Your task to perform on an android device: turn off priority inbox in the gmail app Image 0: 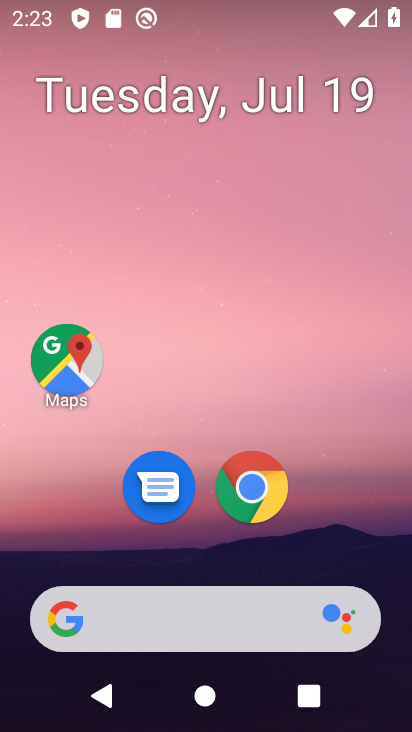
Step 0: drag from (211, 570) to (184, 0)
Your task to perform on an android device: turn off priority inbox in the gmail app Image 1: 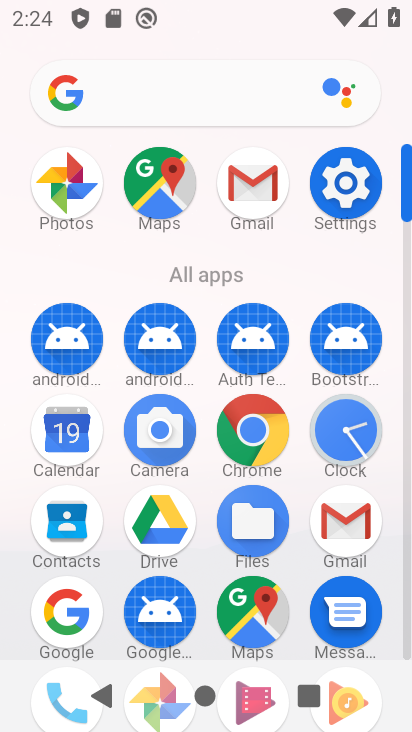
Step 1: click (261, 184)
Your task to perform on an android device: turn off priority inbox in the gmail app Image 2: 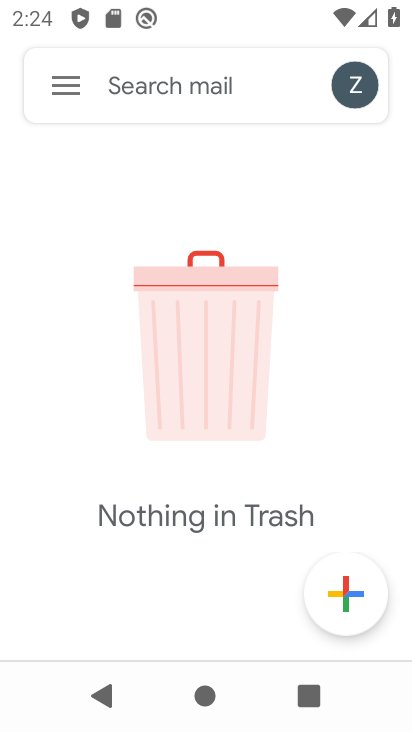
Step 2: click (54, 67)
Your task to perform on an android device: turn off priority inbox in the gmail app Image 3: 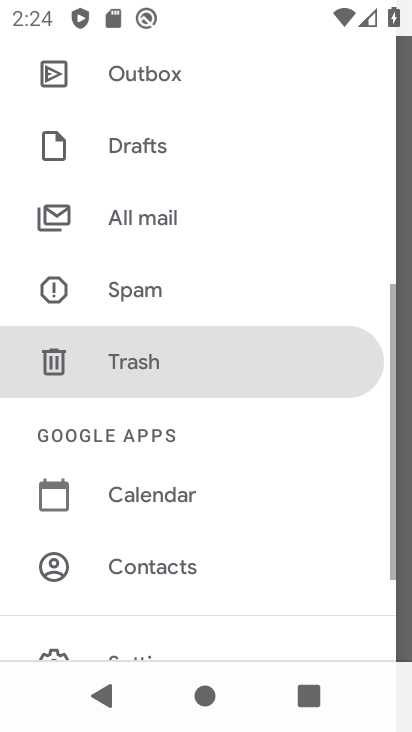
Step 3: drag from (137, 570) to (189, 106)
Your task to perform on an android device: turn off priority inbox in the gmail app Image 4: 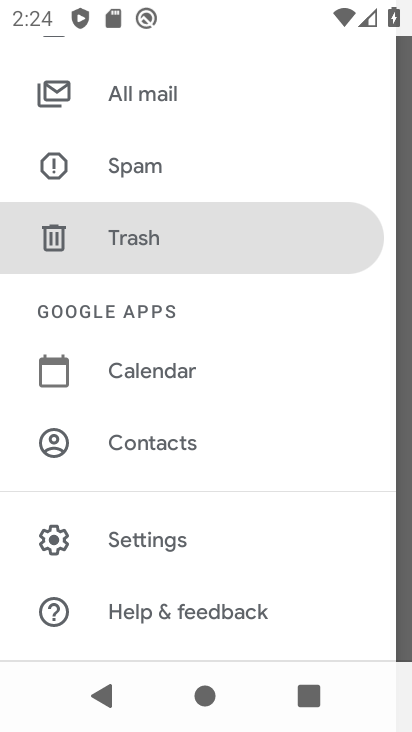
Step 4: click (181, 544)
Your task to perform on an android device: turn off priority inbox in the gmail app Image 5: 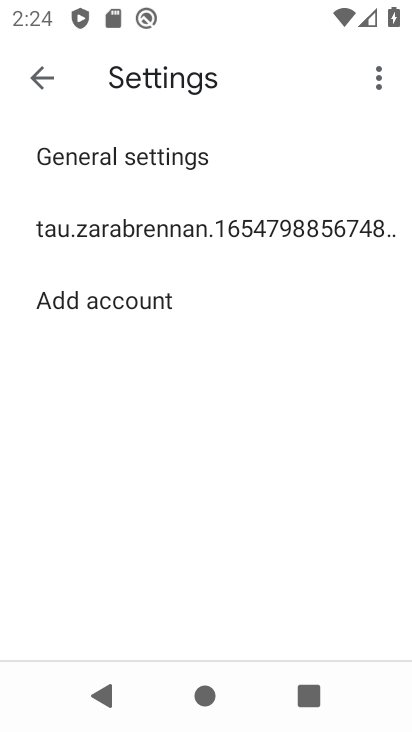
Step 5: click (151, 234)
Your task to perform on an android device: turn off priority inbox in the gmail app Image 6: 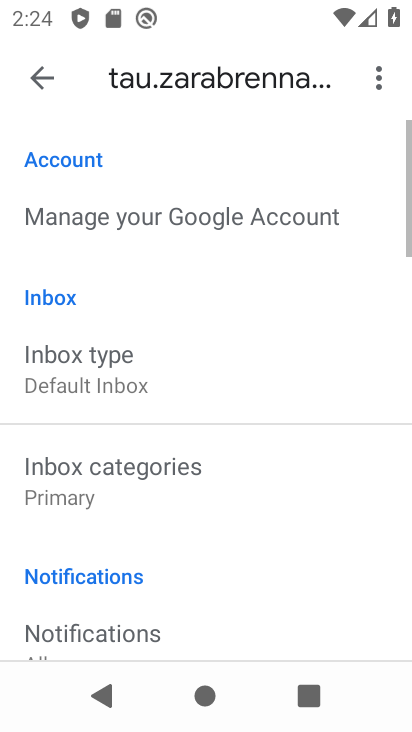
Step 6: click (86, 388)
Your task to perform on an android device: turn off priority inbox in the gmail app Image 7: 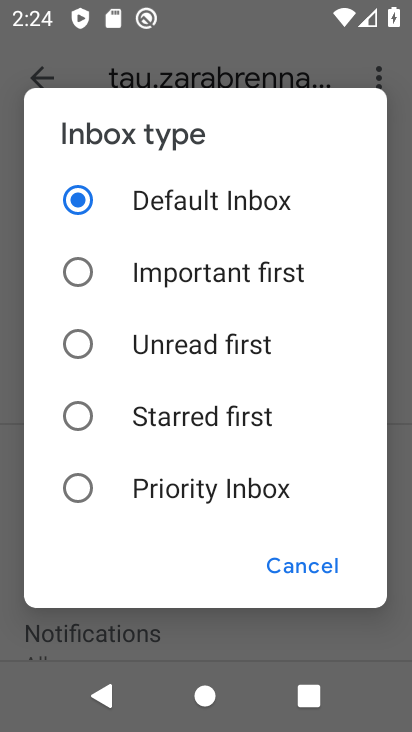
Step 7: task complete